Your task to perform on an android device: check data usage Image 0: 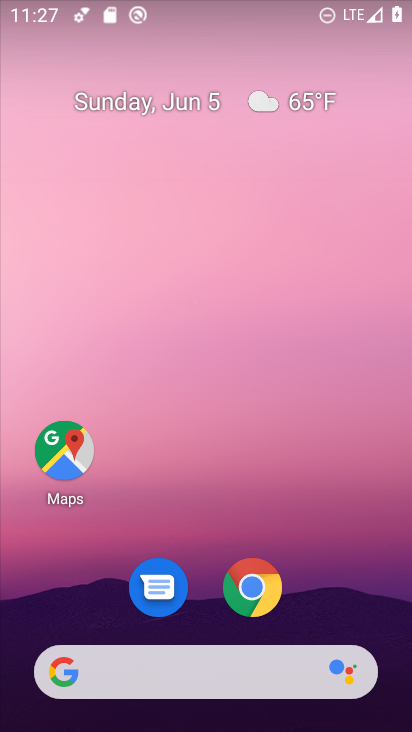
Step 0: drag from (247, 17) to (251, 603)
Your task to perform on an android device: check data usage Image 1: 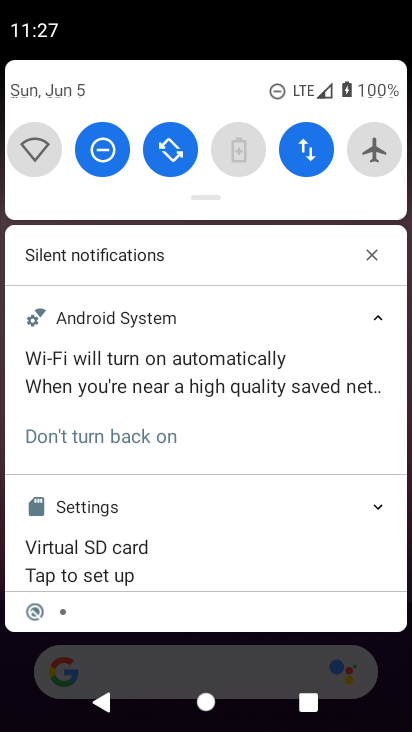
Step 1: click (312, 171)
Your task to perform on an android device: check data usage Image 2: 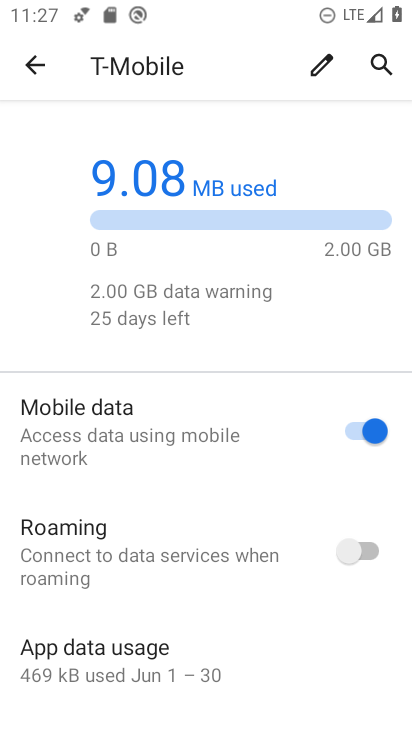
Step 2: task complete